Your task to perform on an android device: What's the weather going to be tomorrow? Image 0: 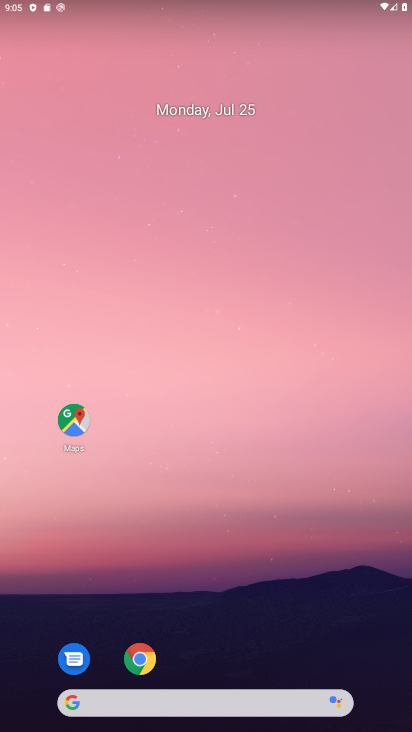
Step 0: click (177, 699)
Your task to perform on an android device: What's the weather going to be tomorrow? Image 1: 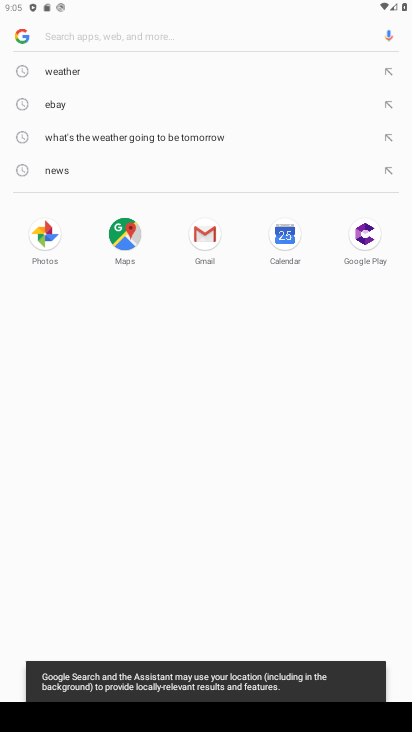
Step 1: click (82, 75)
Your task to perform on an android device: What's the weather going to be tomorrow? Image 2: 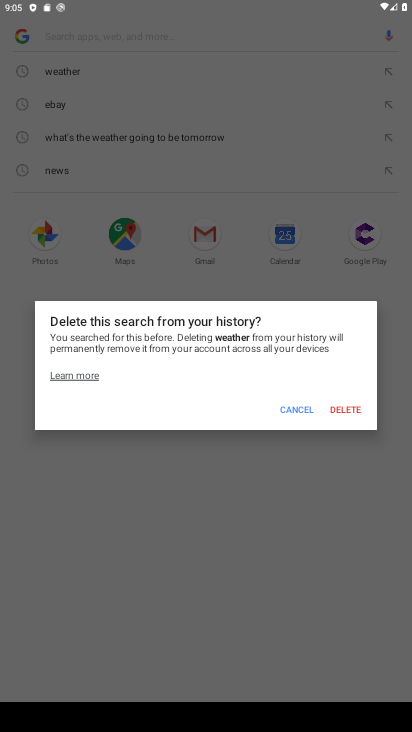
Step 2: click (292, 400)
Your task to perform on an android device: What's the weather going to be tomorrow? Image 3: 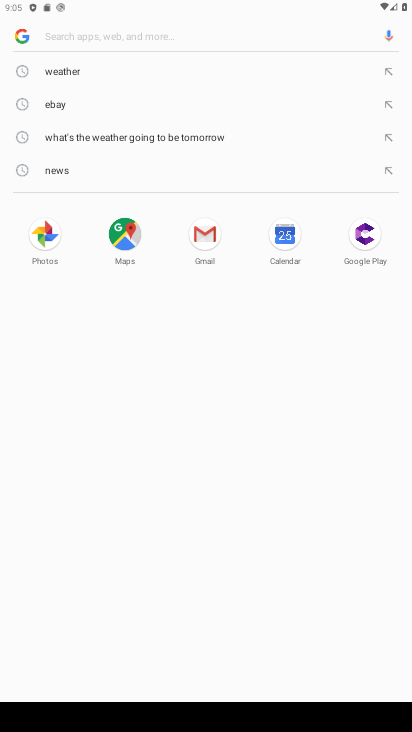
Step 3: click (94, 74)
Your task to perform on an android device: What's the weather going to be tomorrow? Image 4: 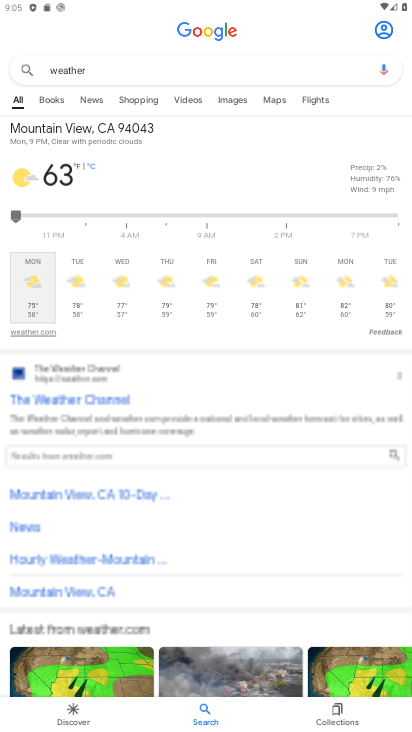
Step 4: click (79, 291)
Your task to perform on an android device: What's the weather going to be tomorrow? Image 5: 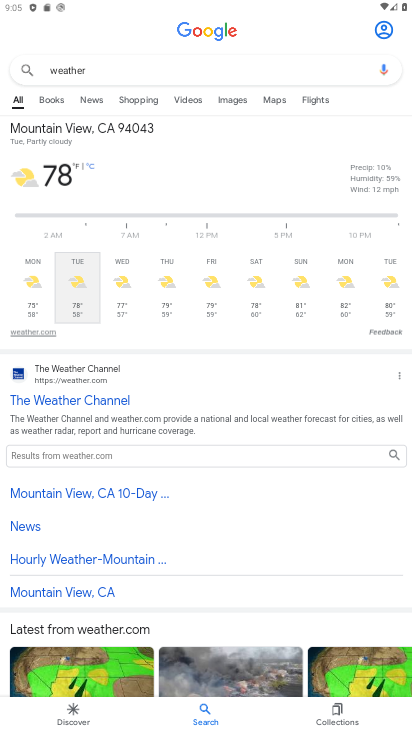
Step 5: task complete